Your task to perform on an android device: What's the weather? Image 0: 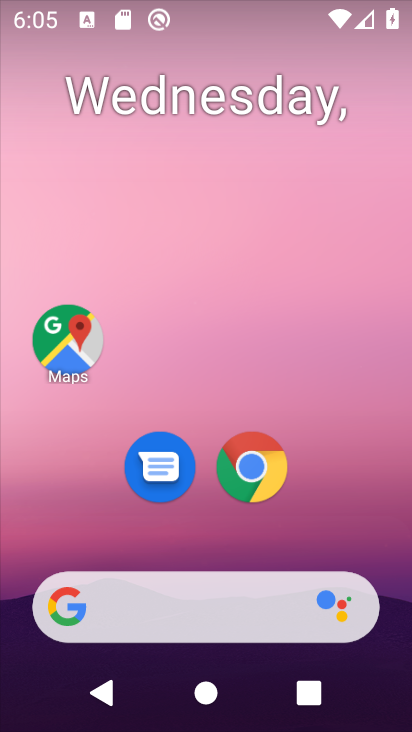
Step 0: drag from (344, 494) to (191, 6)
Your task to perform on an android device: What's the weather? Image 1: 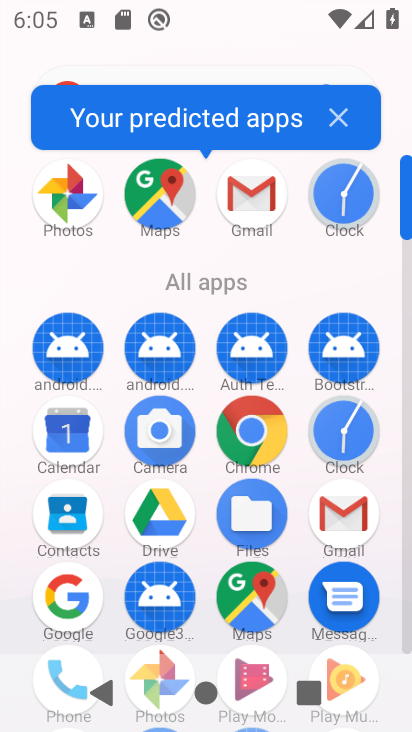
Step 1: click (60, 610)
Your task to perform on an android device: What's the weather? Image 2: 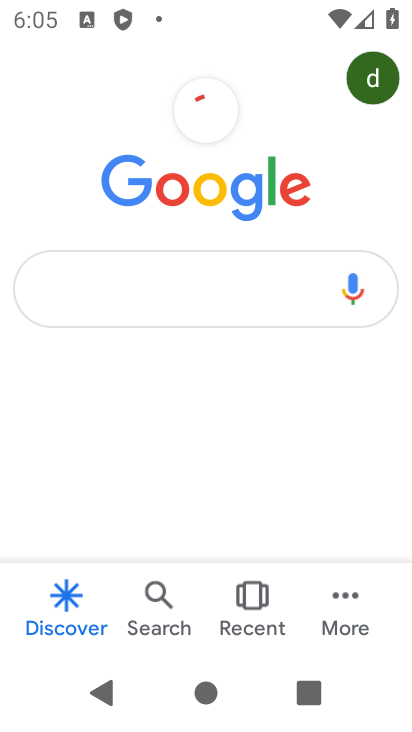
Step 2: click (165, 276)
Your task to perform on an android device: What's the weather? Image 3: 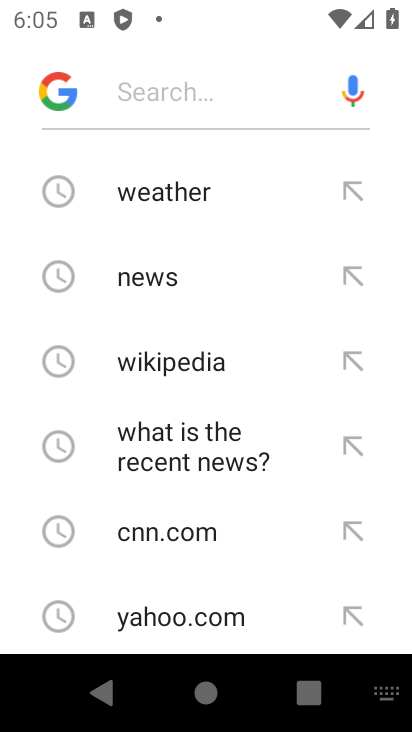
Step 3: click (196, 188)
Your task to perform on an android device: What's the weather? Image 4: 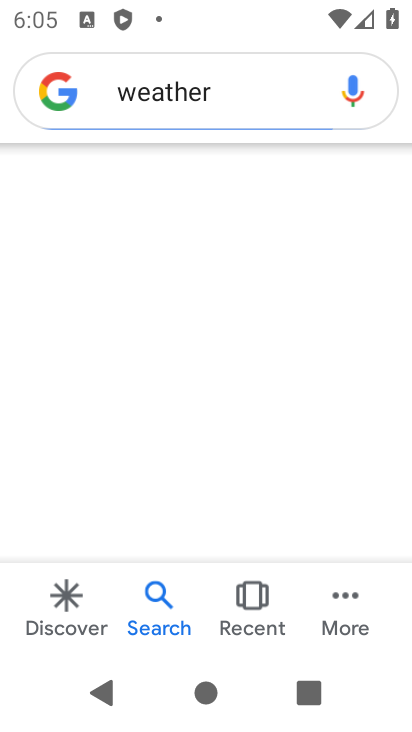
Step 4: task complete